Your task to perform on an android device: check battery use Image 0: 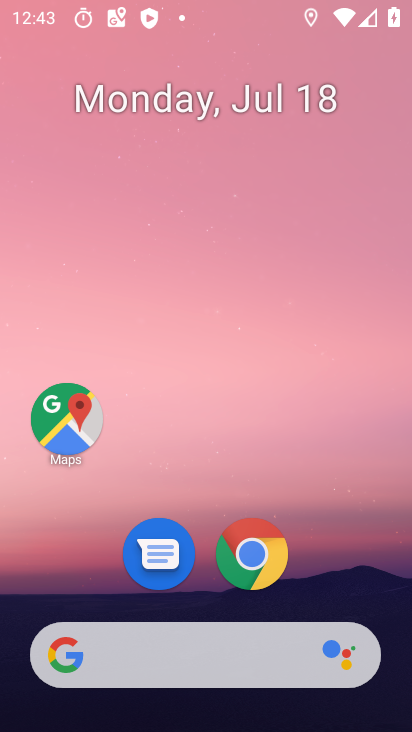
Step 0: click (256, 6)
Your task to perform on an android device: check battery use Image 1: 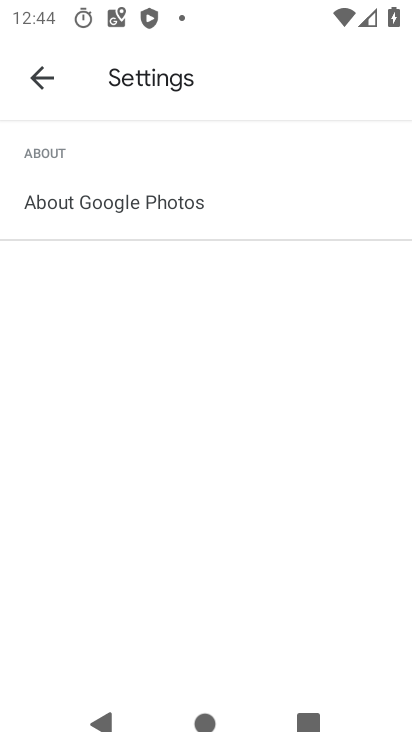
Step 1: click (35, 72)
Your task to perform on an android device: check battery use Image 2: 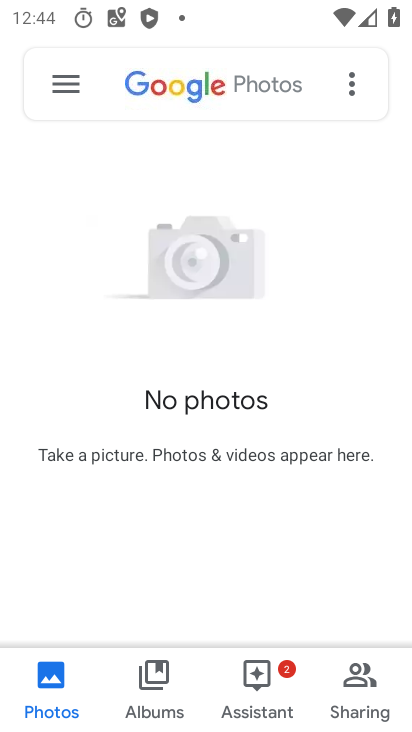
Step 2: press back button
Your task to perform on an android device: check battery use Image 3: 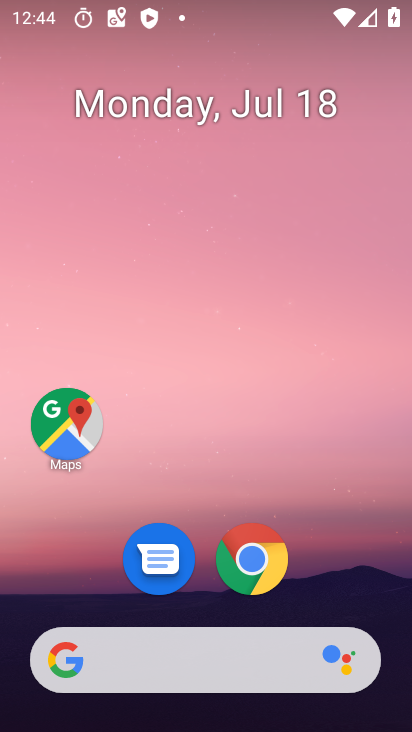
Step 3: drag from (82, 566) to (265, 25)
Your task to perform on an android device: check battery use Image 4: 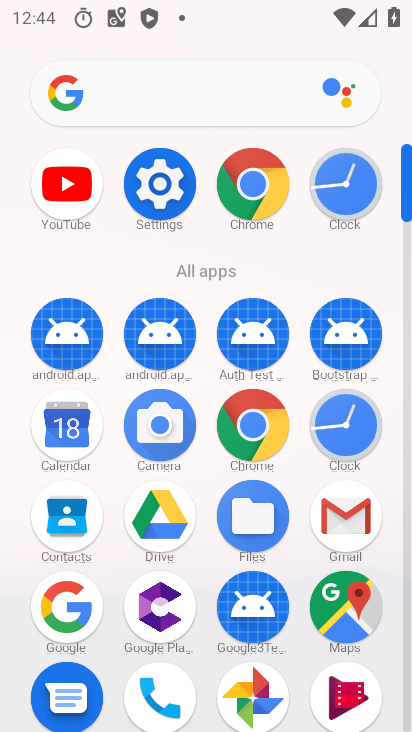
Step 4: click (176, 176)
Your task to perform on an android device: check battery use Image 5: 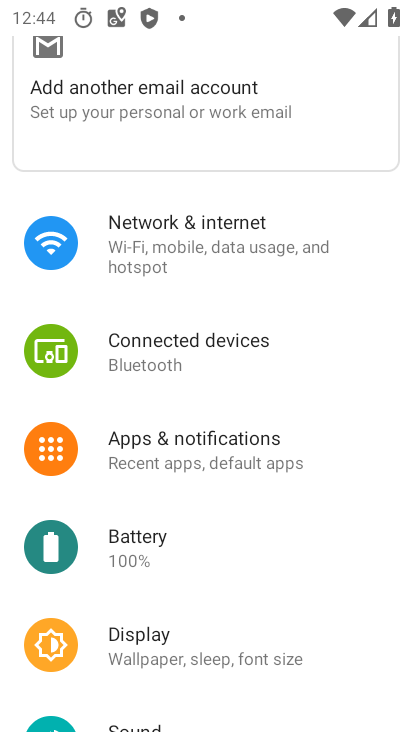
Step 5: click (163, 538)
Your task to perform on an android device: check battery use Image 6: 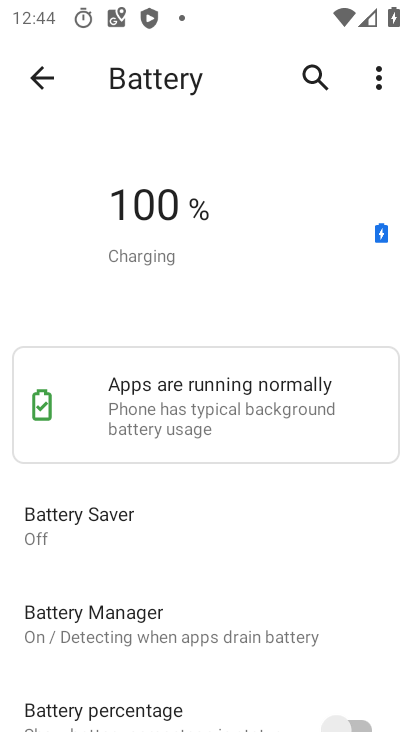
Step 6: click (380, 58)
Your task to perform on an android device: check battery use Image 7: 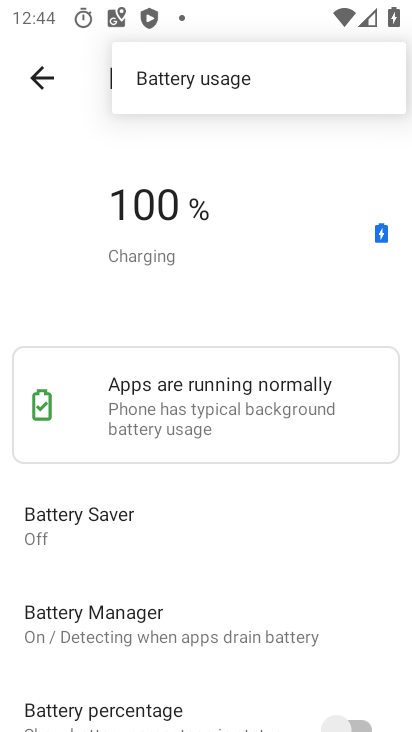
Step 7: click (260, 72)
Your task to perform on an android device: check battery use Image 8: 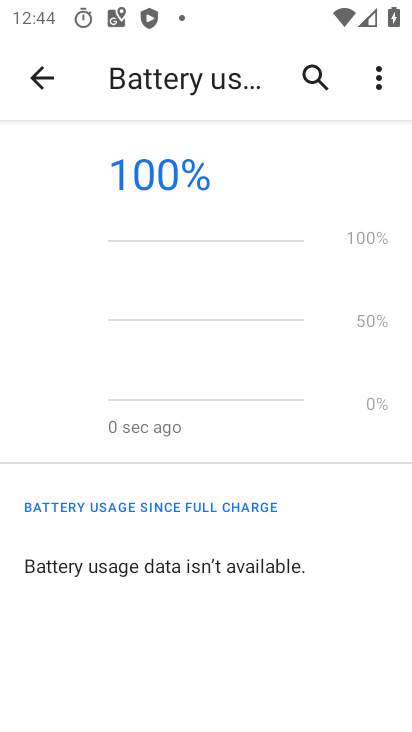
Step 8: task complete